Your task to perform on an android device: Search for pizza restaurants on Maps Image 0: 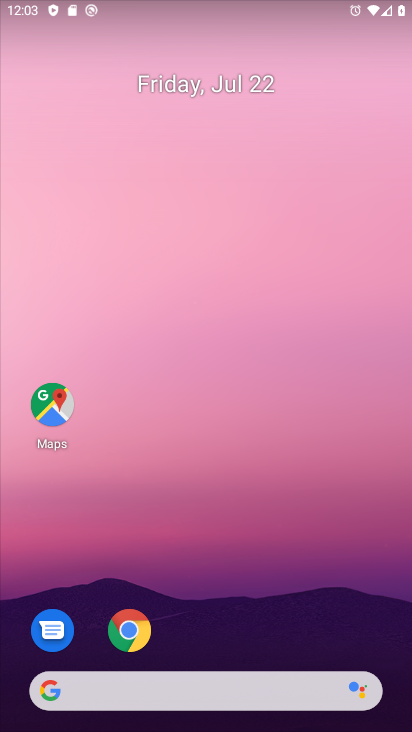
Step 0: click (53, 411)
Your task to perform on an android device: Search for pizza restaurants on Maps Image 1: 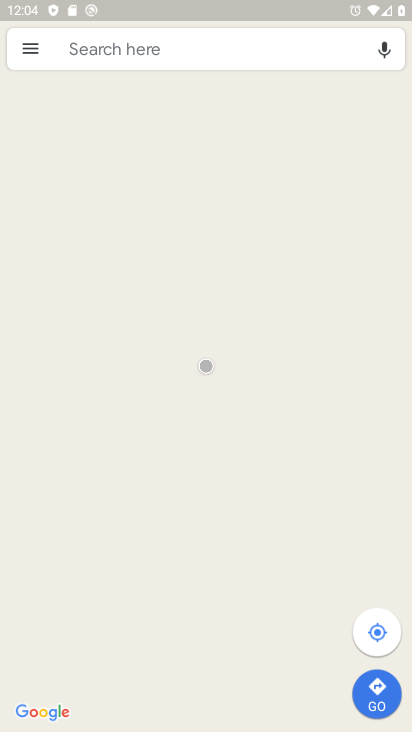
Step 1: click (178, 53)
Your task to perform on an android device: Search for pizza restaurants on Maps Image 2: 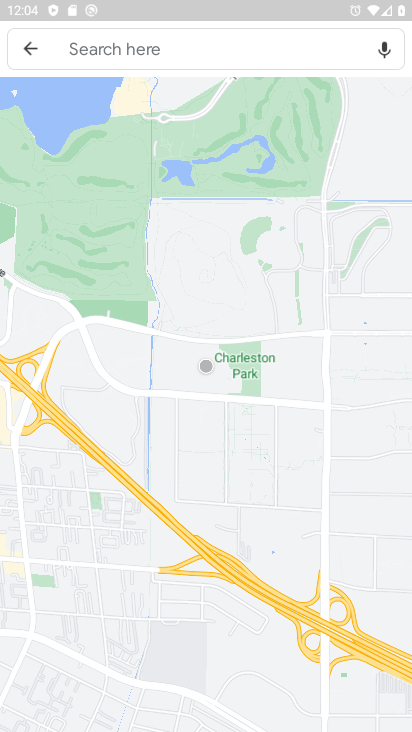
Step 2: click (178, 53)
Your task to perform on an android device: Search for pizza restaurants on Maps Image 3: 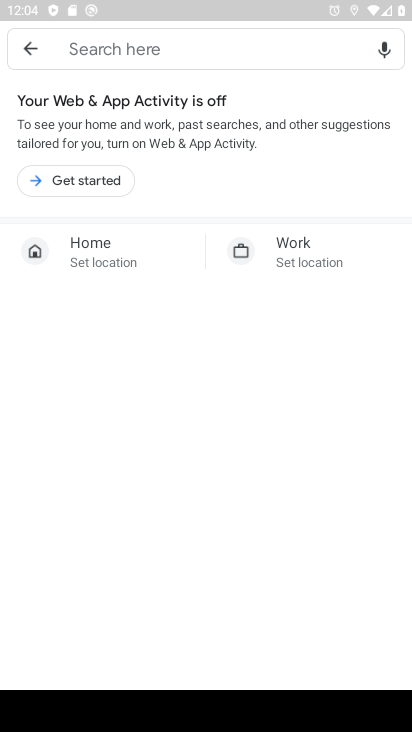
Step 3: type "pizza restaurants"
Your task to perform on an android device: Search for pizza restaurants on Maps Image 4: 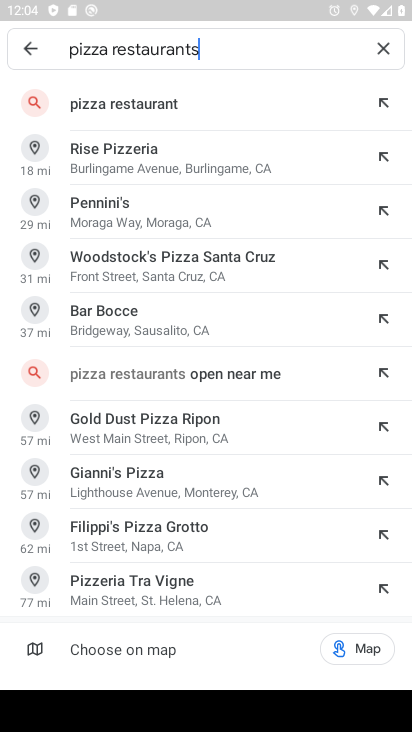
Step 4: click (175, 102)
Your task to perform on an android device: Search for pizza restaurants on Maps Image 5: 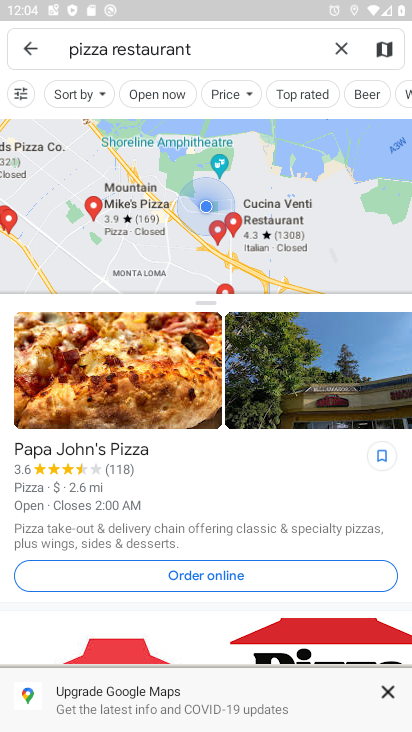
Step 5: task complete